Your task to perform on an android device: What's the weather going to be tomorrow? Image 0: 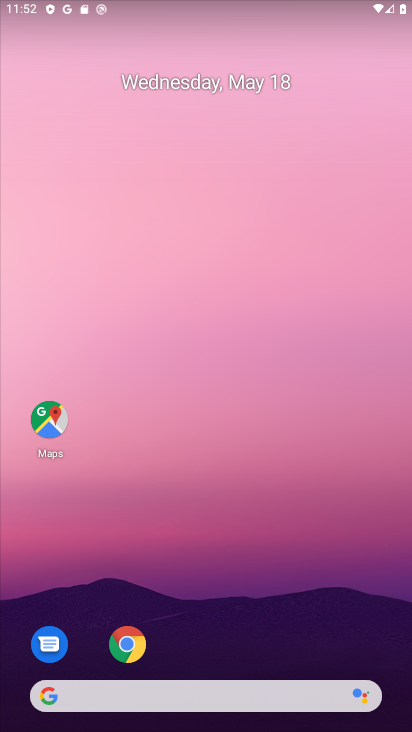
Step 0: drag from (340, 641) to (411, 106)
Your task to perform on an android device: What's the weather going to be tomorrow? Image 1: 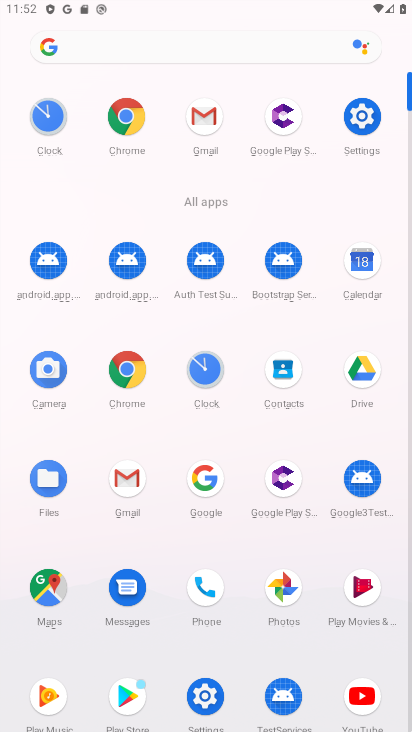
Step 1: click (148, 381)
Your task to perform on an android device: What's the weather going to be tomorrow? Image 2: 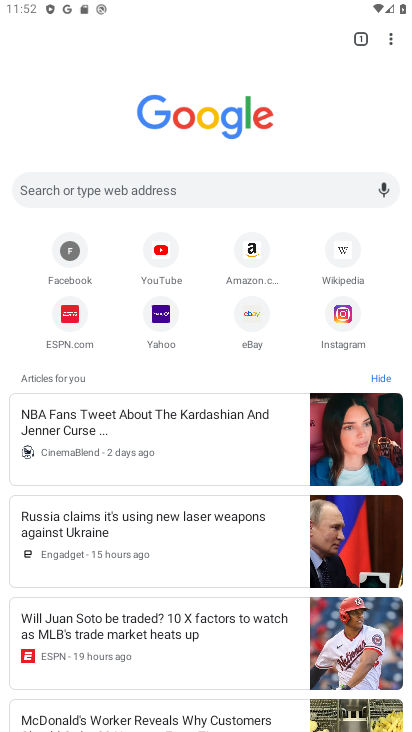
Step 2: click (202, 185)
Your task to perform on an android device: What's the weather going to be tomorrow? Image 3: 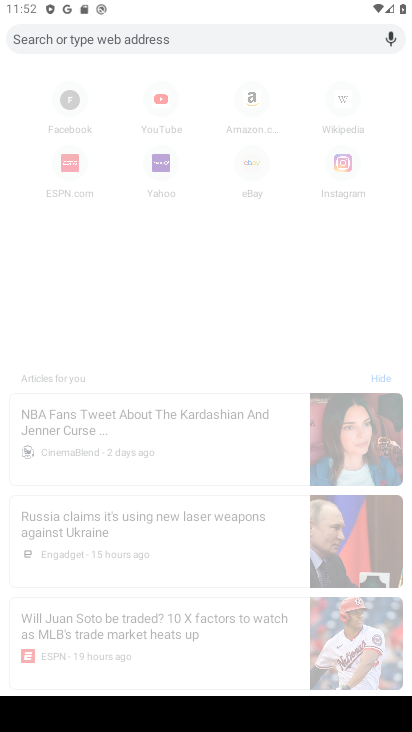
Step 3: type "what's the weather going to be tomorrow"
Your task to perform on an android device: What's the weather going to be tomorrow? Image 4: 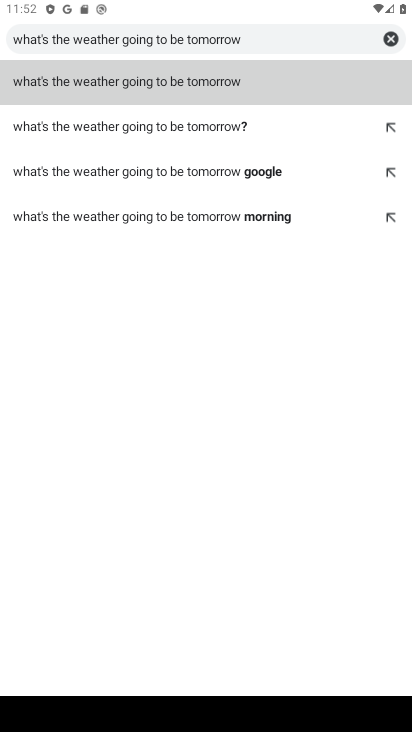
Step 4: click (185, 90)
Your task to perform on an android device: What's the weather going to be tomorrow? Image 5: 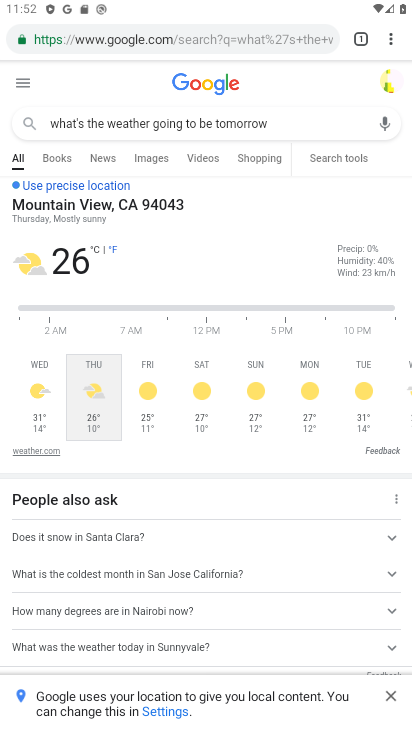
Step 5: task complete